Your task to perform on an android device: Open Android settings Image 0: 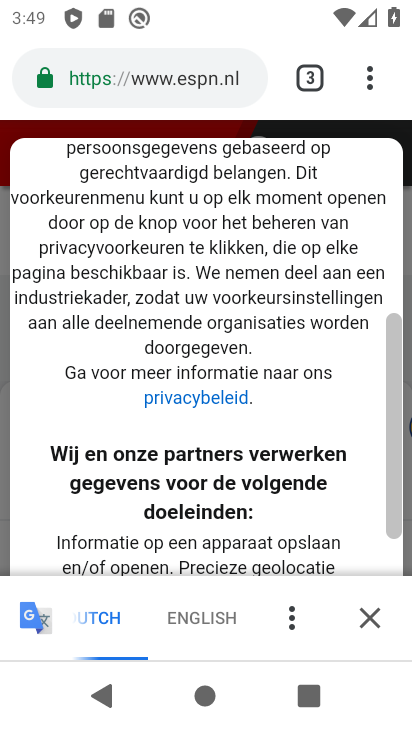
Step 0: press back button
Your task to perform on an android device: Open Android settings Image 1: 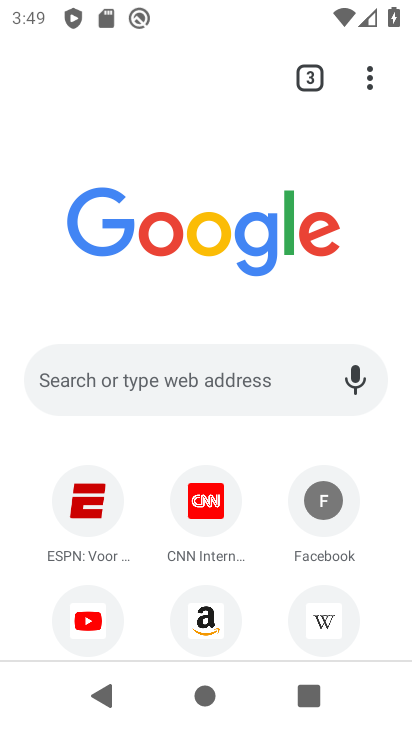
Step 1: press back button
Your task to perform on an android device: Open Android settings Image 2: 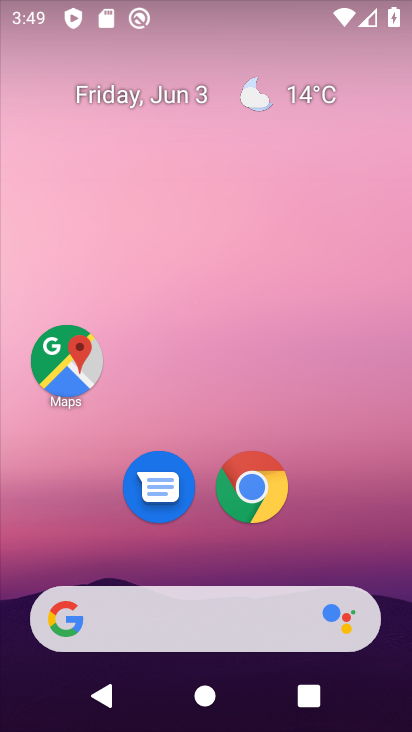
Step 2: drag from (215, 536) to (266, 4)
Your task to perform on an android device: Open Android settings Image 3: 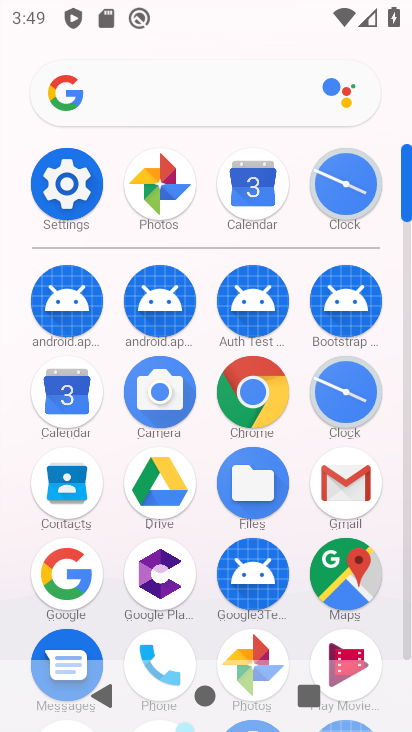
Step 3: click (60, 197)
Your task to perform on an android device: Open Android settings Image 4: 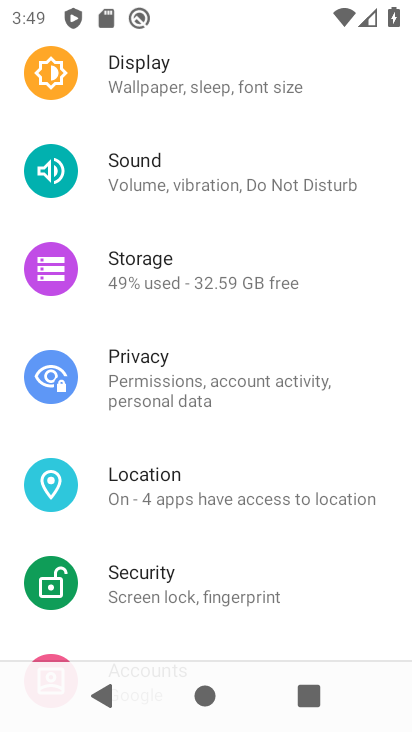
Step 4: drag from (225, 103) to (157, 672)
Your task to perform on an android device: Open Android settings Image 5: 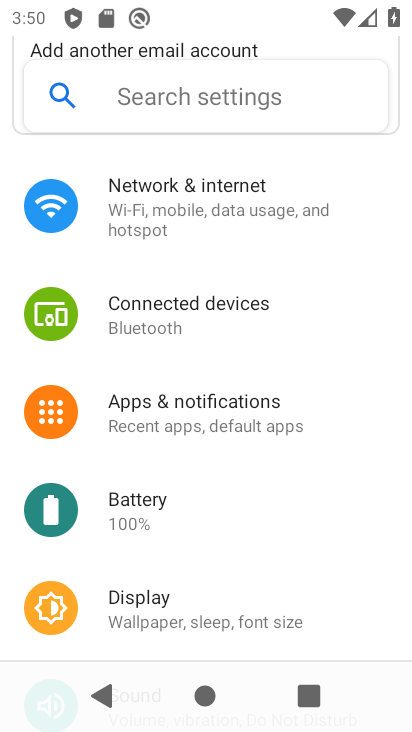
Step 5: drag from (165, 595) to (218, 179)
Your task to perform on an android device: Open Android settings Image 6: 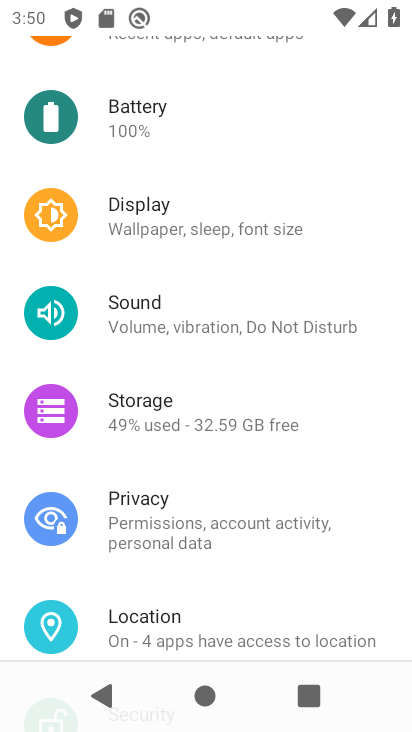
Step 6: drag from (189, 601) to (263, 52)
Your task to perform on an android device: Open Android settings Image 7: 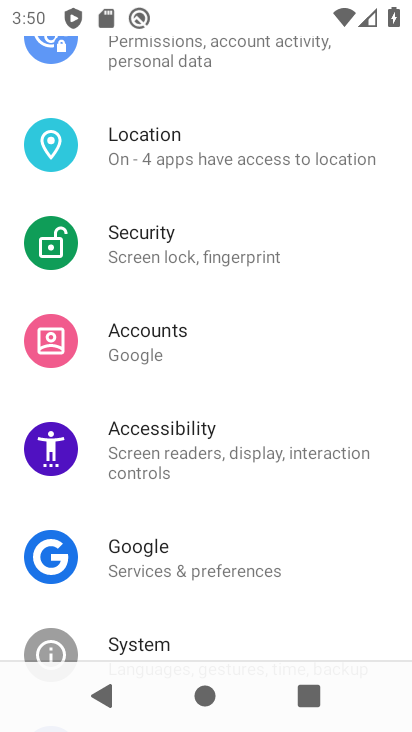
Step 7: drag from (168, 494) to (209, 101)
Your task to perform on an android device: Open Android settings Image 8: 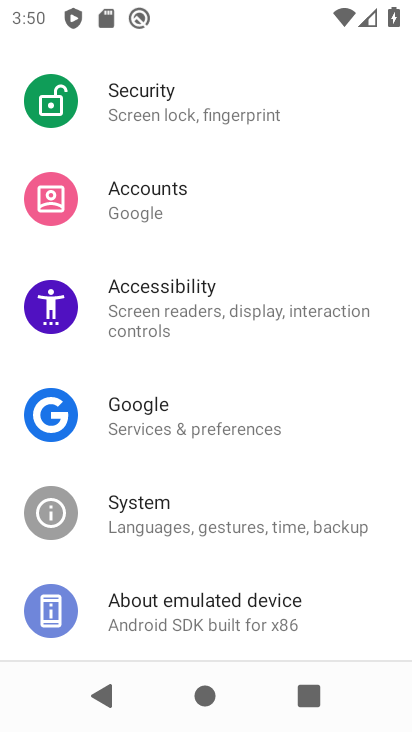
Step 8: drag from (213, 632) to (208, 68)
Your task to perform on an android device: Open Android settings Image 9: 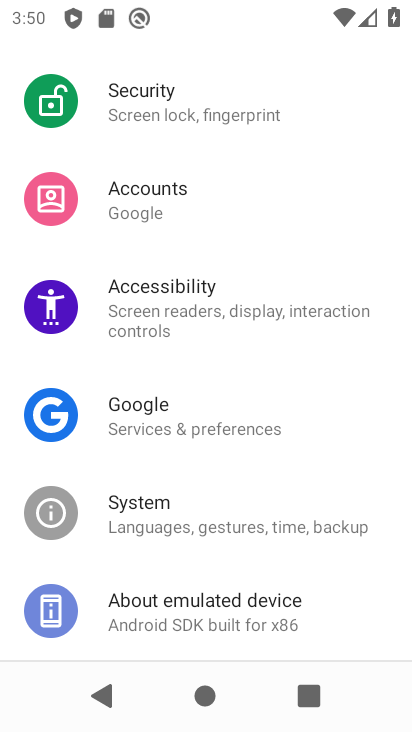
Step 9: click (163, 611)
Your task to perform on an android device: Open Android settings Image 10: 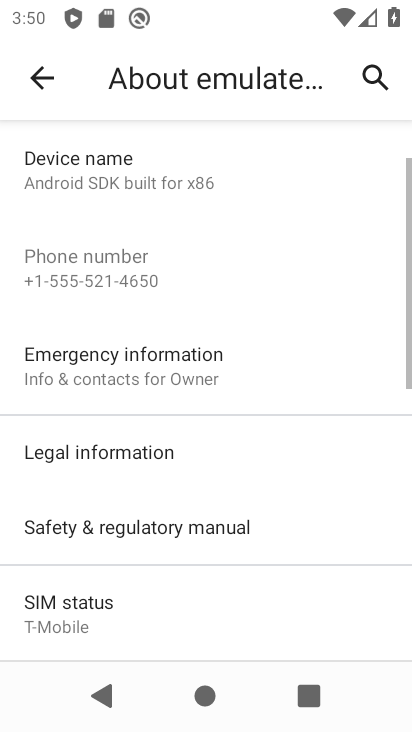
Step 10: task complete